Your task to perform on an android device: Show me the alarms in the clock app Image 0: 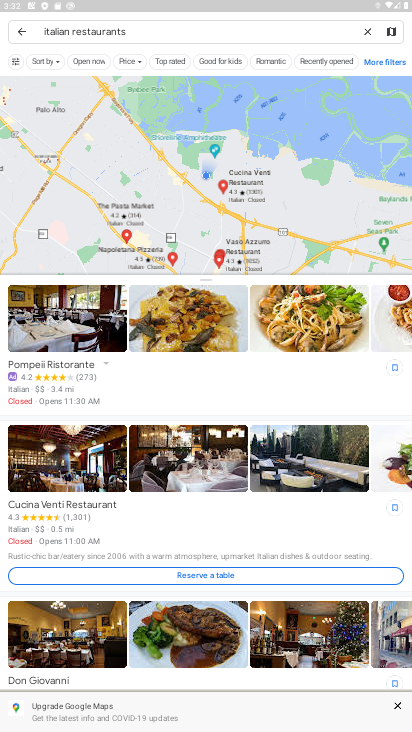
Step 0: press home button
Your task to perform on an android device: Show me the alarms in the clock app Image 1: 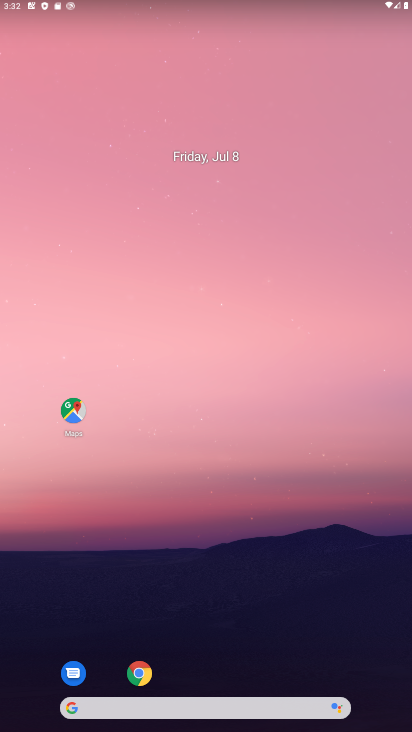
Step 1: drag from (195, 669) to (130, 122)
Your task to perform on an android device: Show me the alarms in the clock app Image 2: 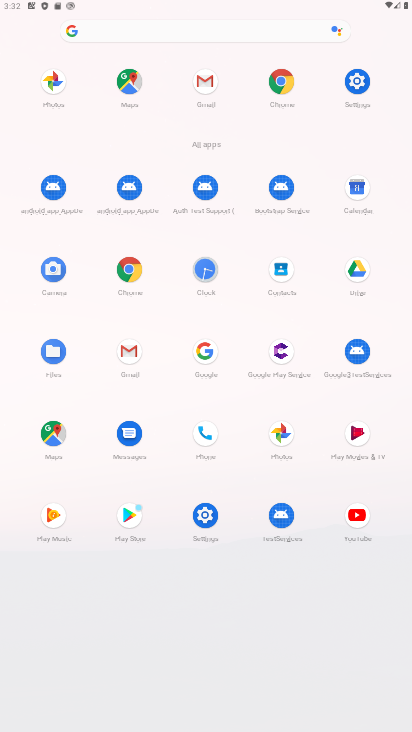
Step 2: click (209, 267)
Your task to perform on an android device: Show me the alarms in the clock app Image 3: 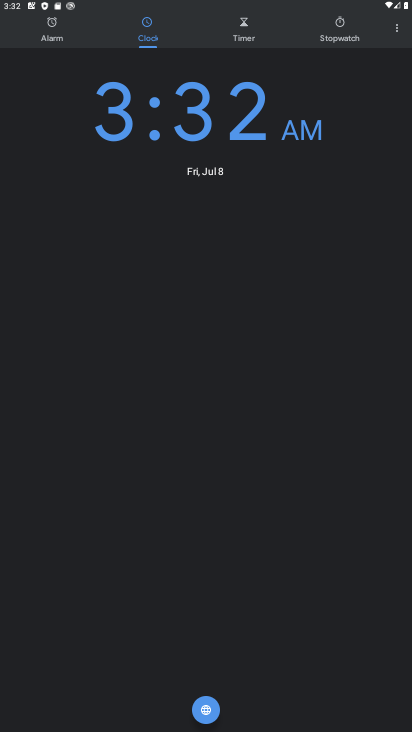
Step 3: click (58, 32)
Your task to perform on an android device: Show me the alarms in the clock app Image 4: 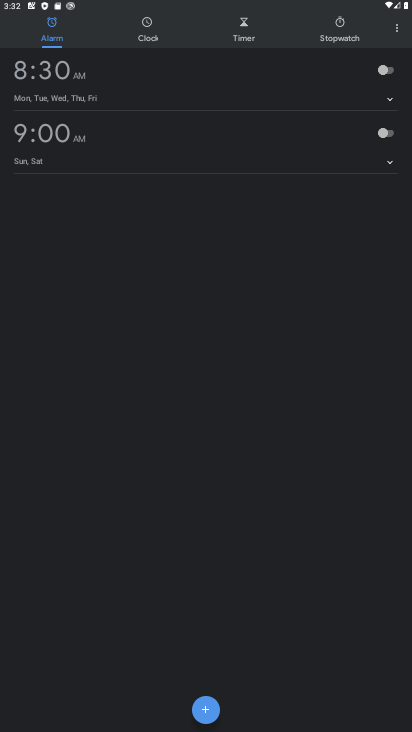
Step 4: task complete